Your task to perform on an android device: turn off sleep mode Image 0: 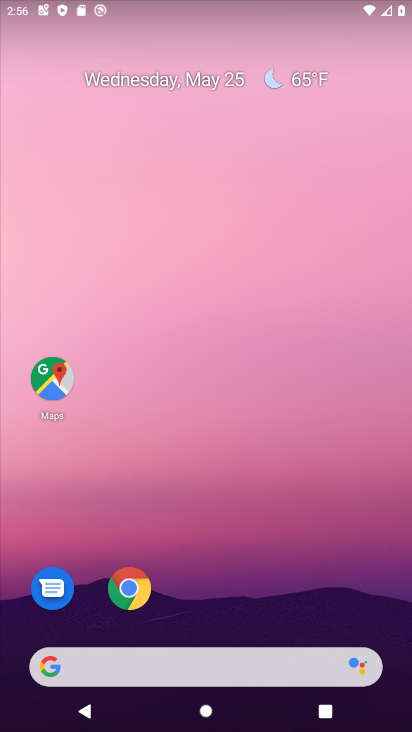
Step 0: drag from (204, 589) to (294, 130)
Your task to perform on an android device: turn off sleep mode Image 1: 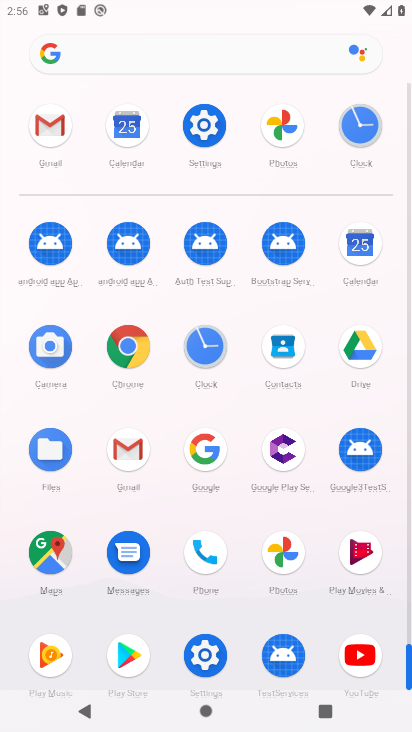
Step 1: click (208, 652)
Your task to perform on an android device: turn off sleep mode Image 2: 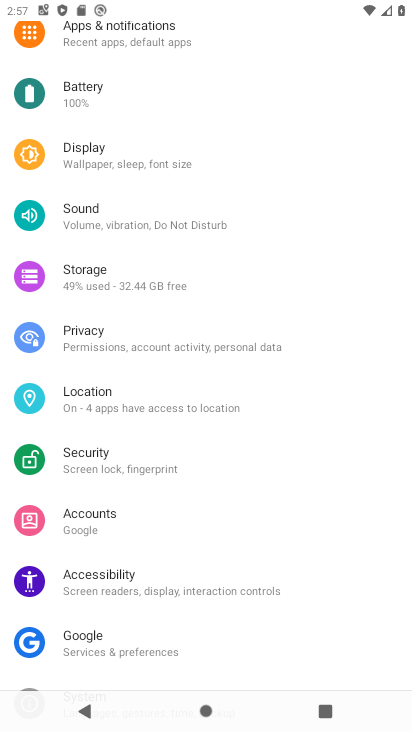
Step 2: click (140, 157)
Your task to perform on an android device: turn off sleep mode Image 3: 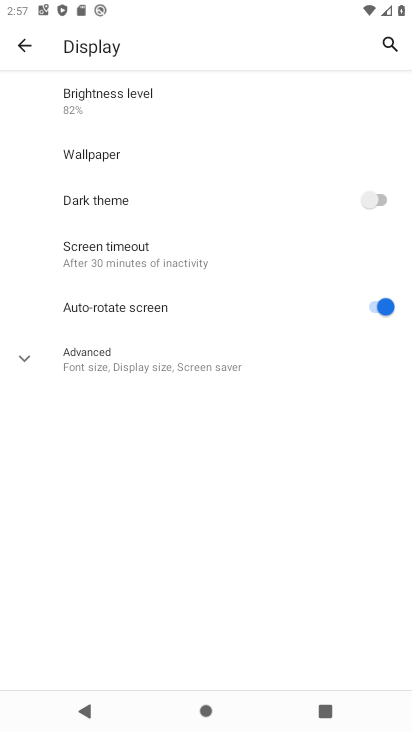
Step 3: task complete